Your task to perform on an android device: Go to Google maps Image 0: 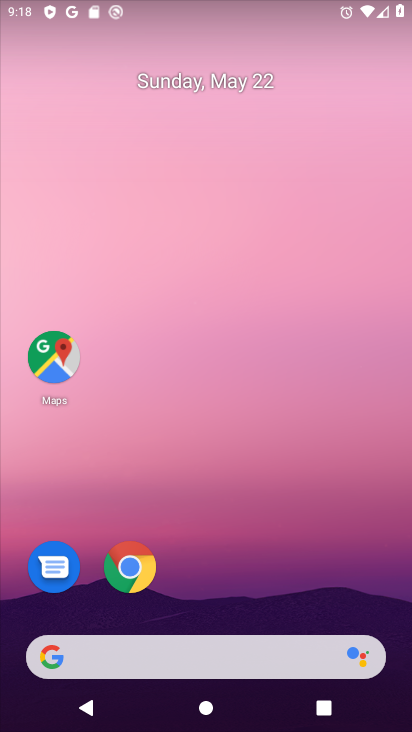
Step 0: click (52, 354)
Your task to perform on an android device: Go to Google maps Image 1: 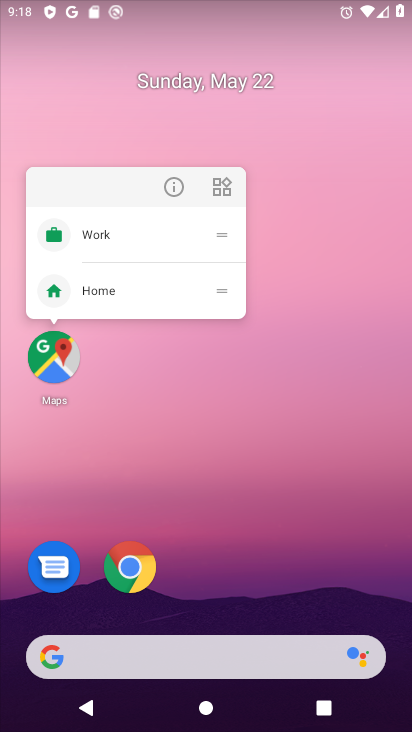
Step 1: click (51, 361)
Your task to perform on an android device: Go to Google maps Image 2: 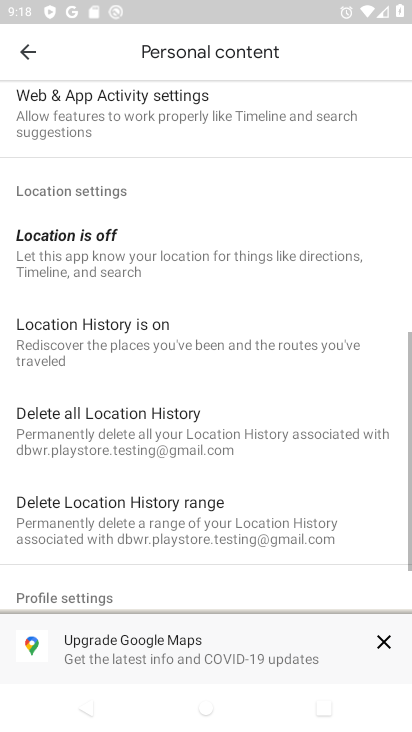
Step 2: click (36, 51)
Your task to perform on an android device: Go to Google maps Image 3: 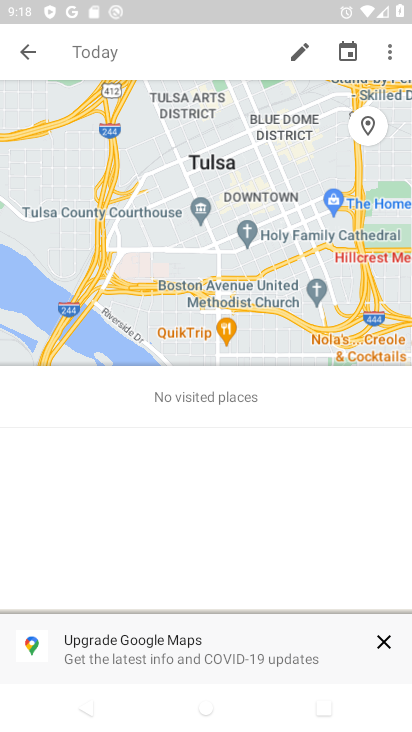
Step 3: click (37, 52)
Your task to perform on an android device: Go to Google maps Image 4: 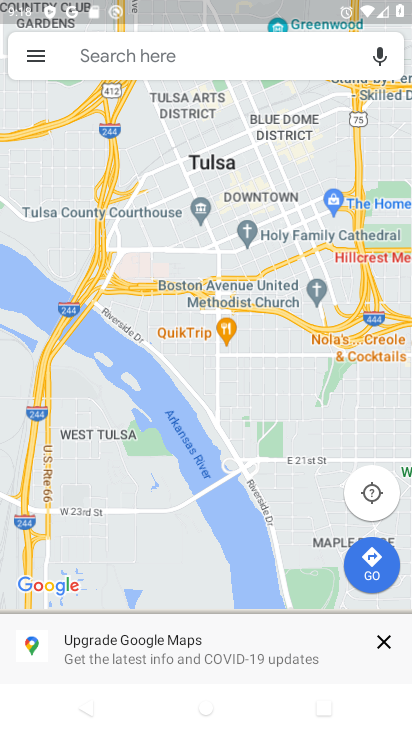
Step 4: task complete